Your task to perform on an android device: turn on sleep mode Image 0: 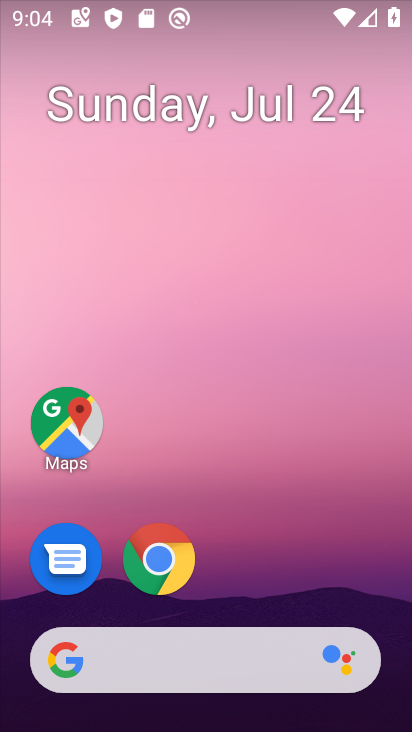
Step 0: drag from (233, 570) to (279, 57)
Your task to perform on an android device: turn on sleep mode Image 1: 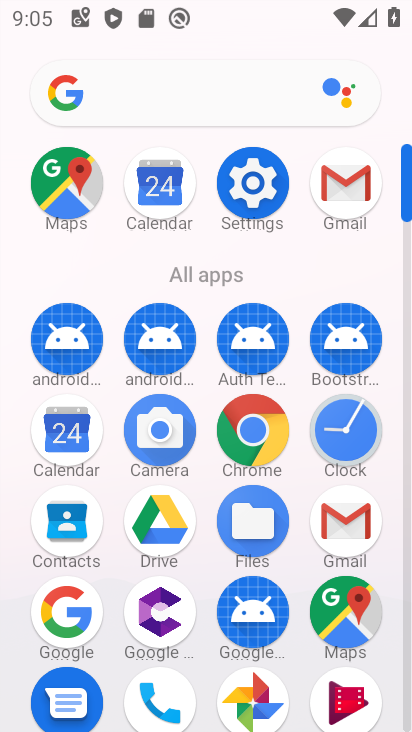
Step 1: click (244, 177)
Your task to perform on an android device: turn on sleep mode Image 2: 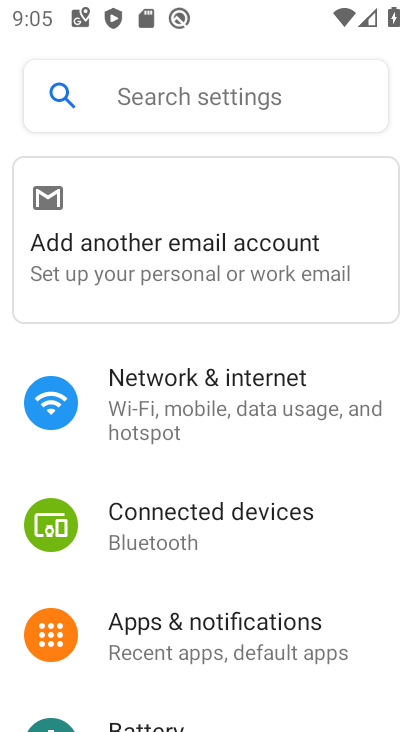
Step 2: click (185, 107)
Your task to perform on an android device: turn on sleep mode Image 3: 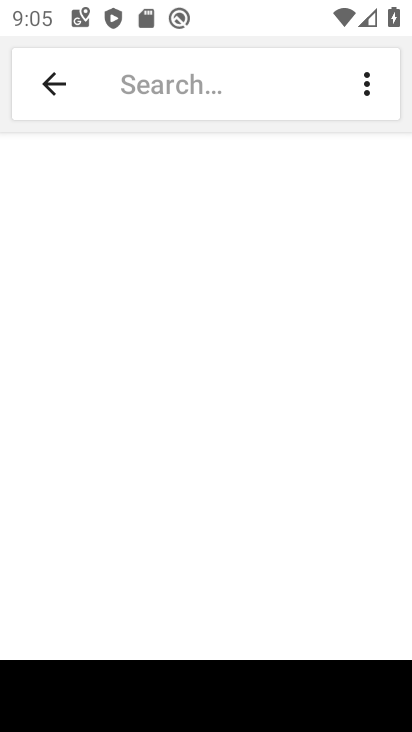
Step 3: type "sleep mode"
Your task to perform on an android device: turn on sleep mode Image 4: 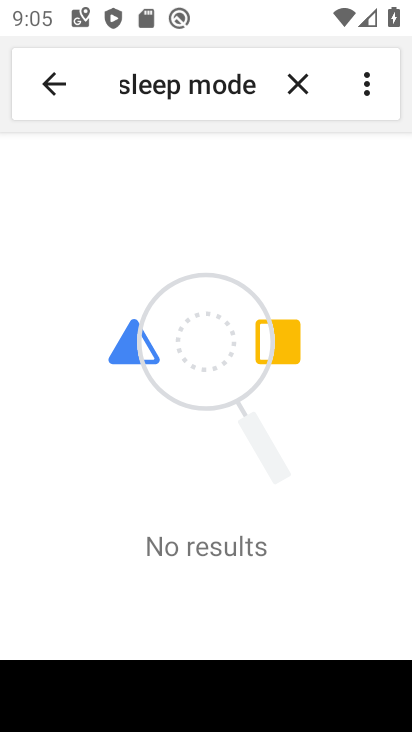
Step 4: task complete